Your task to perform on an android device: Clear the cart on newegg.com. Search for "razer blade" on newegg.com, select the first entry, add it to the cart, then select checkout. Image 0: 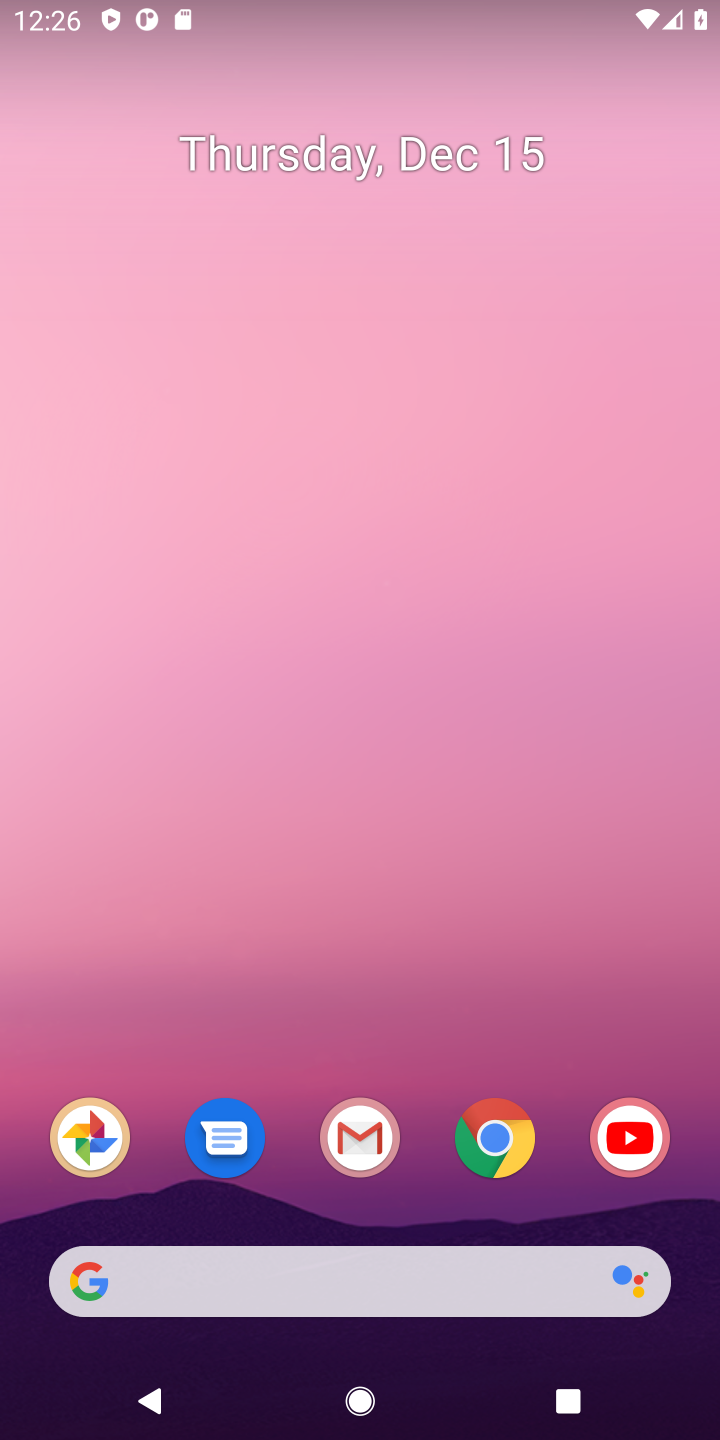
Step 0: click (476, 1156)
Your task to perform on an android device: Clear the cart on newegg.com. Search for "razer blade" on newegg.com, select the first entry, add it to the cart, then select checkout. Image 1: 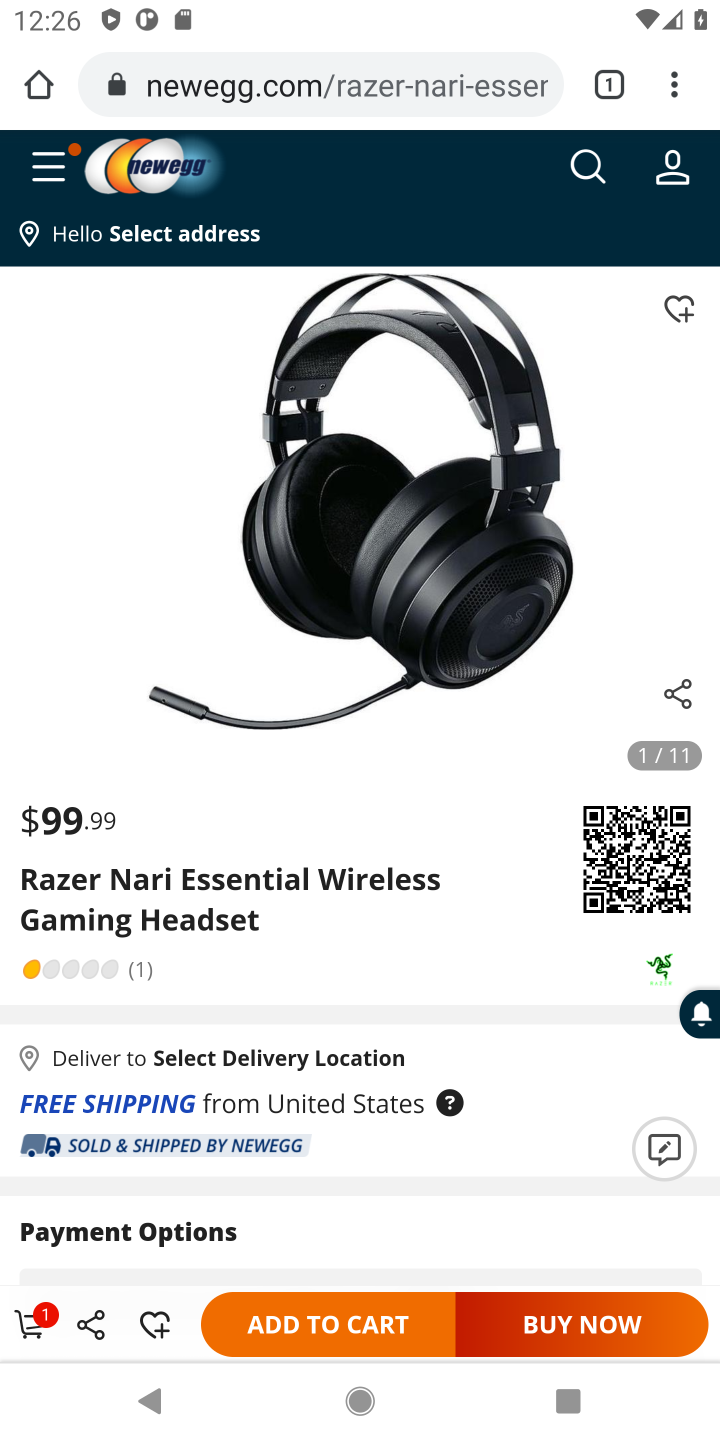
Step 1: click (31, 1324)
Your task to perform on an android device: Clear the cart on newegg.com. Search for "razer blade" on newegg.com, select the first entry, add it to the cart, then select checkout. Image 2: 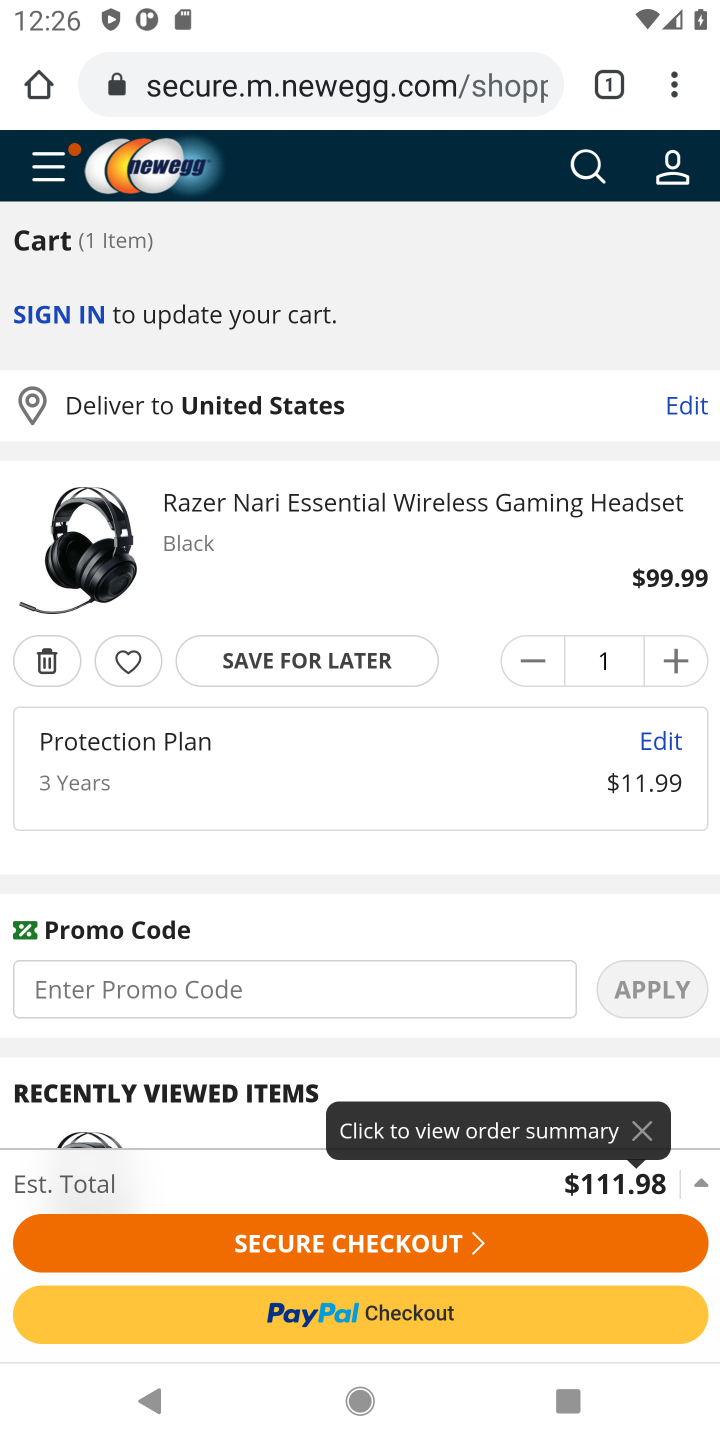
Step 2: click (53, 661)
Your task to perform on an android device: Clear the cart on newegg.com. Search for "razer blade" on newegg.com, select the first entry, add it to the cart, then select checkout. Image 3: 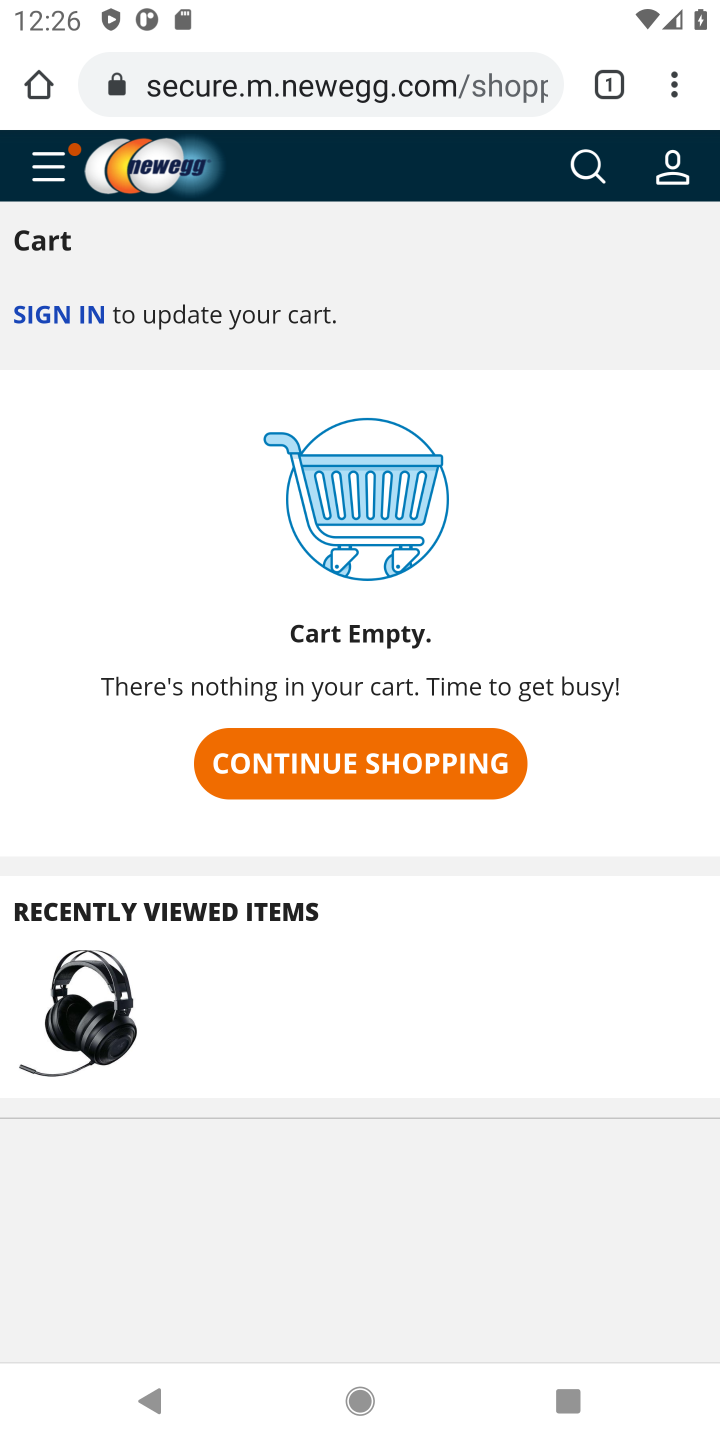
Step 3: click (591, 177)
Your task to perform on an android device: Clear the cart on newegg.com. Search for "razer blade" on newegg.com, select the first entry, add it to the cart, then select checkout. Image 4: 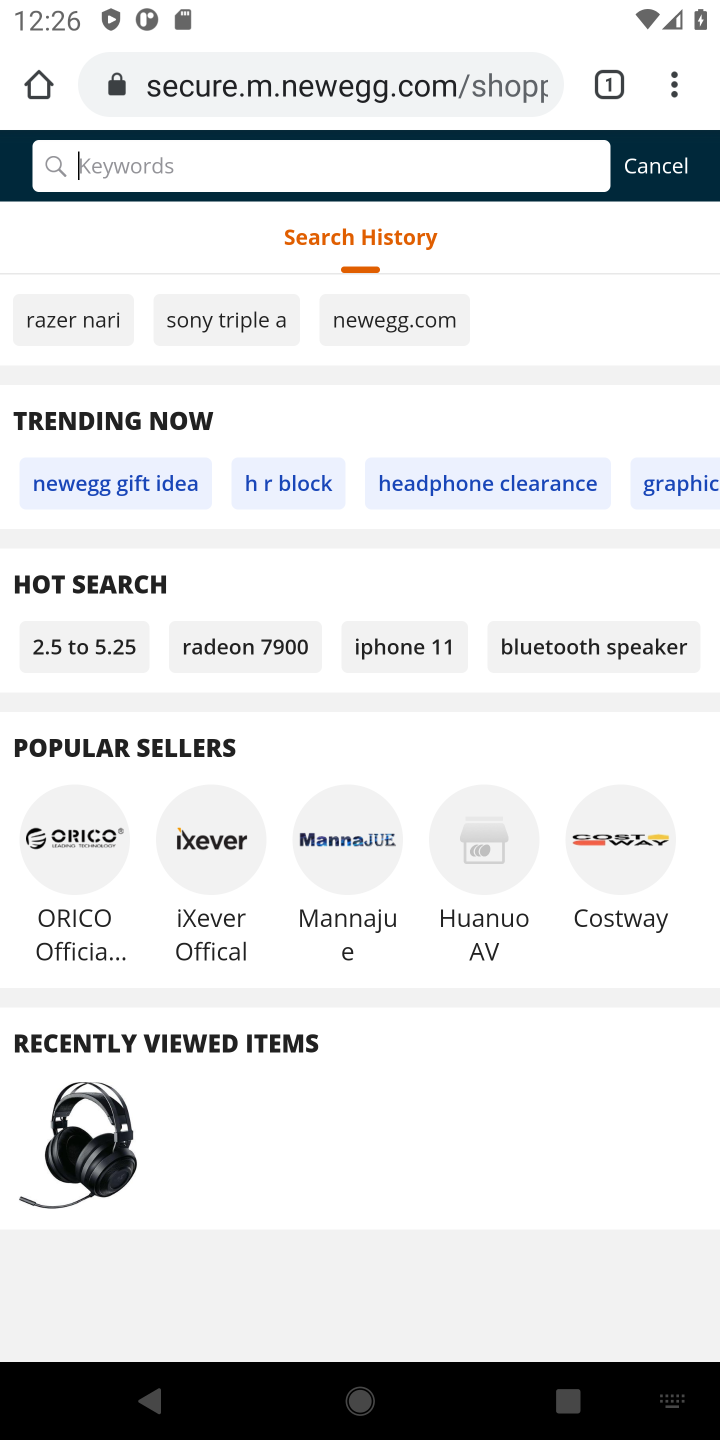
Step 4: click (520, 172)
Your task to perform on an android device: Clear the cart on newegg.com. Search for "razer blade" on newegg.com, select the first entry, add it to the cart, then select checkout. Image 5: 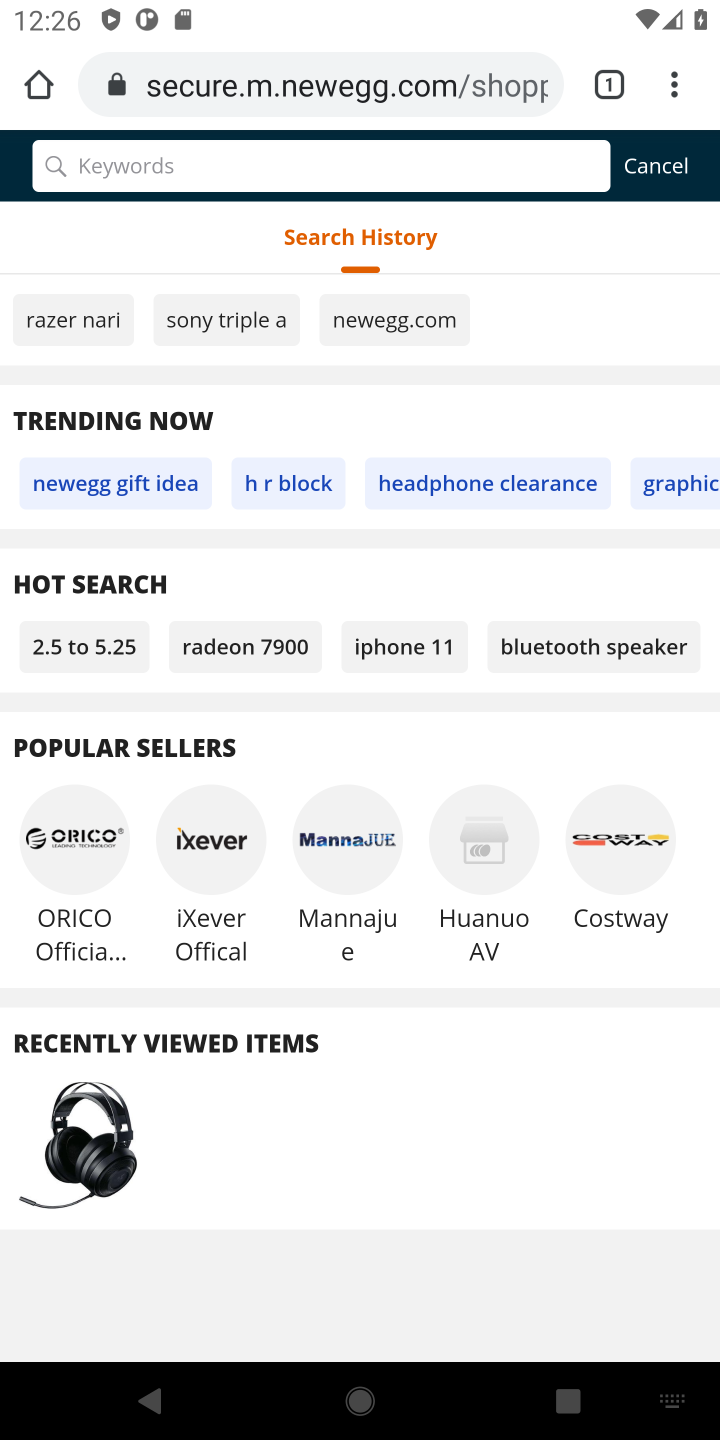
Step 5: type "razer blade"
Your task to perform on an android device: Clear the cart on newegg.com. Search for "razer blade" on newegg.com, select the first entry, add it to the cart, then select checkout. Image 6: 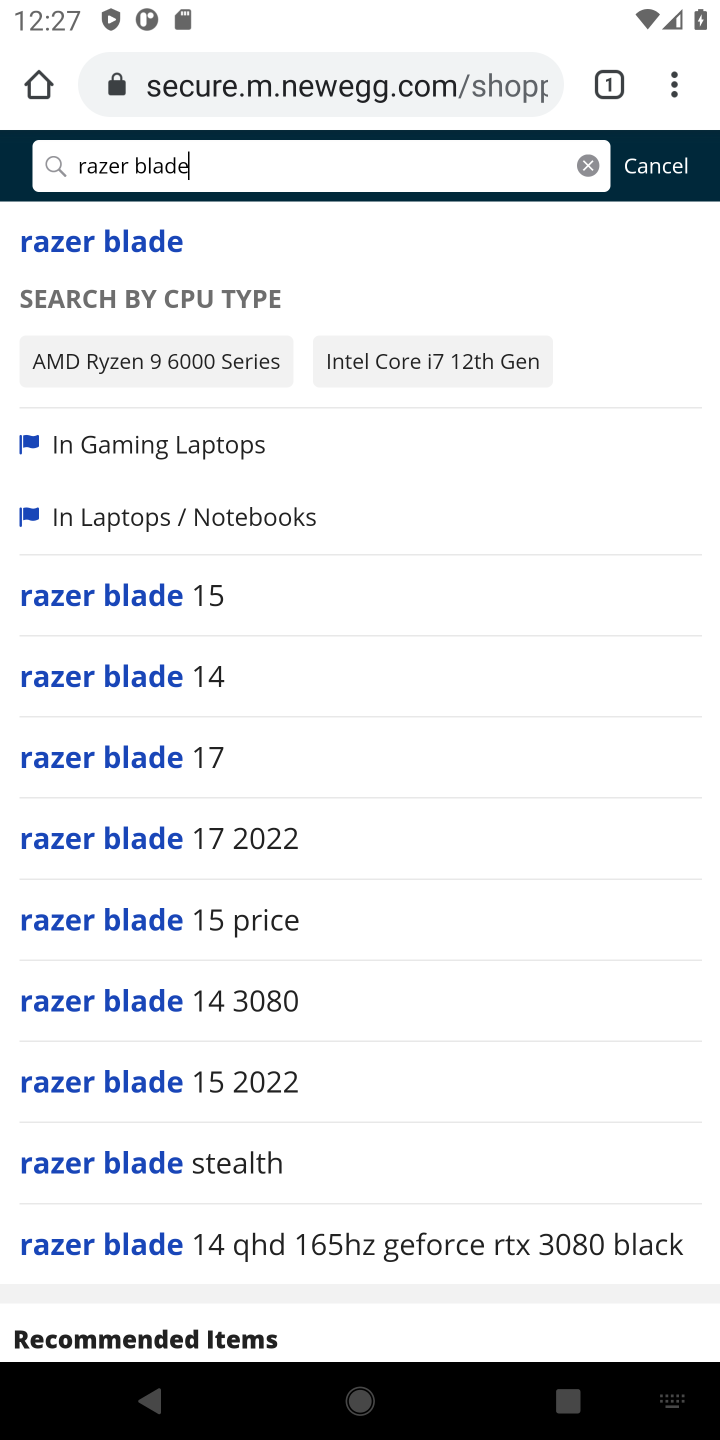
Step 6: press enter
Your task to perform on an android device: Clear the cart on newegg.com. Search for "razer blade" on newegg.com, select the first entry, add it to the cart, then select checkout. Image 7: 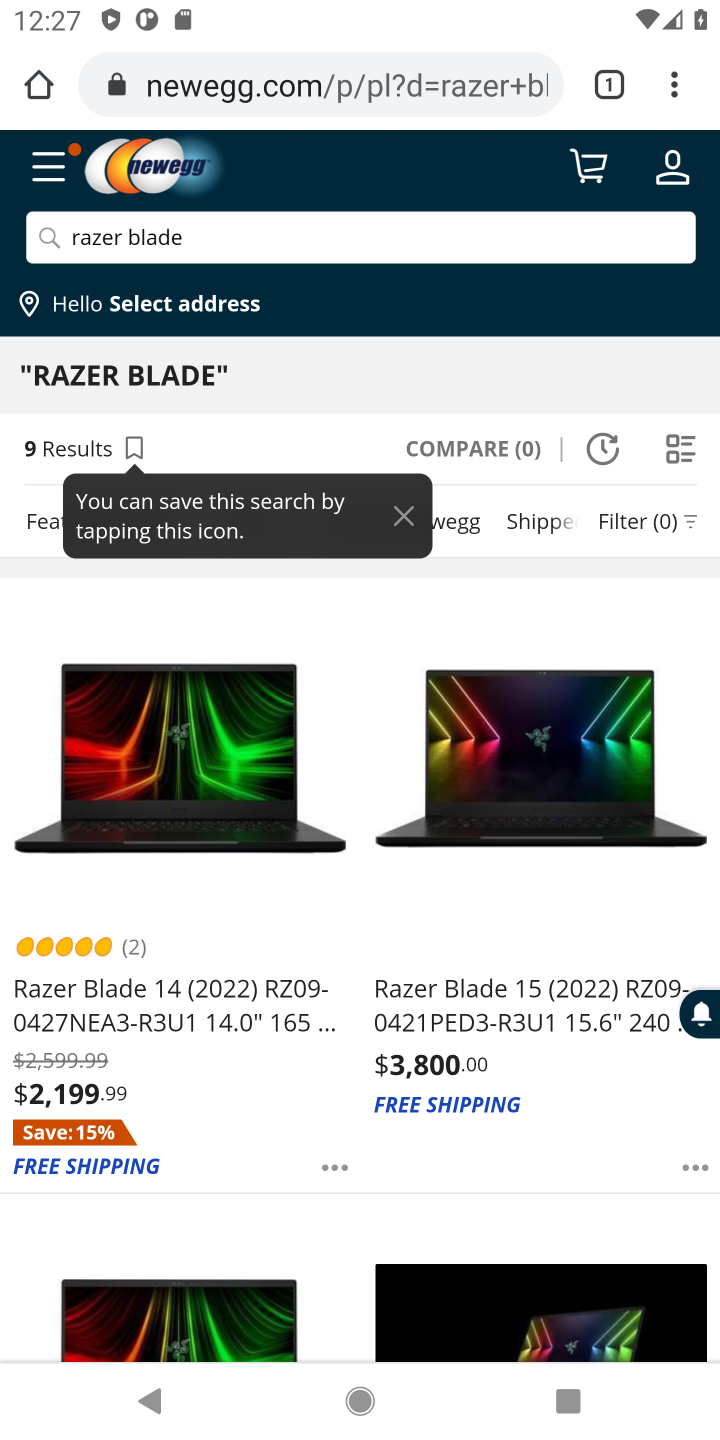
Step 7: click (206, 801)
Your task to perform on an android device: Clear the cart on newegg.com. Search for "razer blade" on newegg.com, select the first entry, add it to the cart, then select checkout. Image 8: 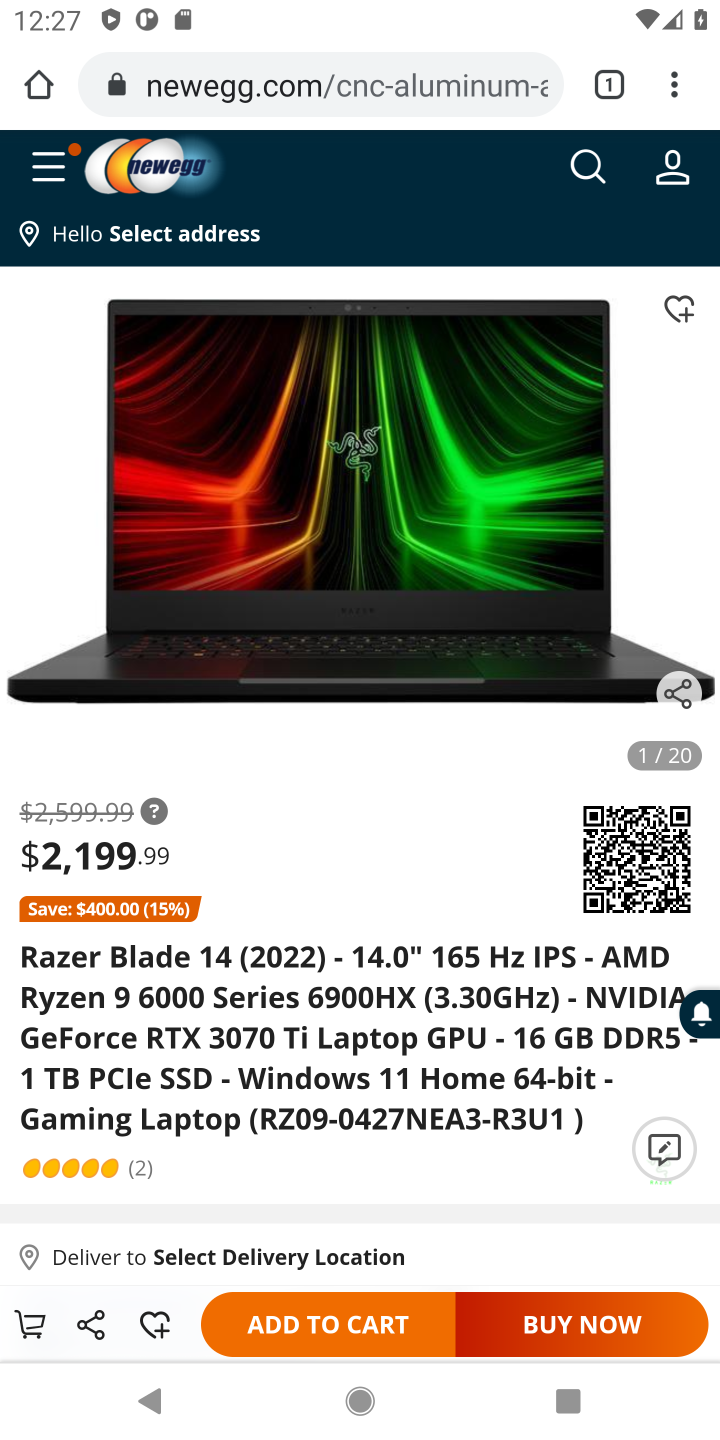
Step 8: click (378, 1318)
Your task to perform on an android device: Clear the cart on newegg.com. Search for "razer blade" on newegg.com, select the first entry, add it to the cart, then select checkout. Image 9: 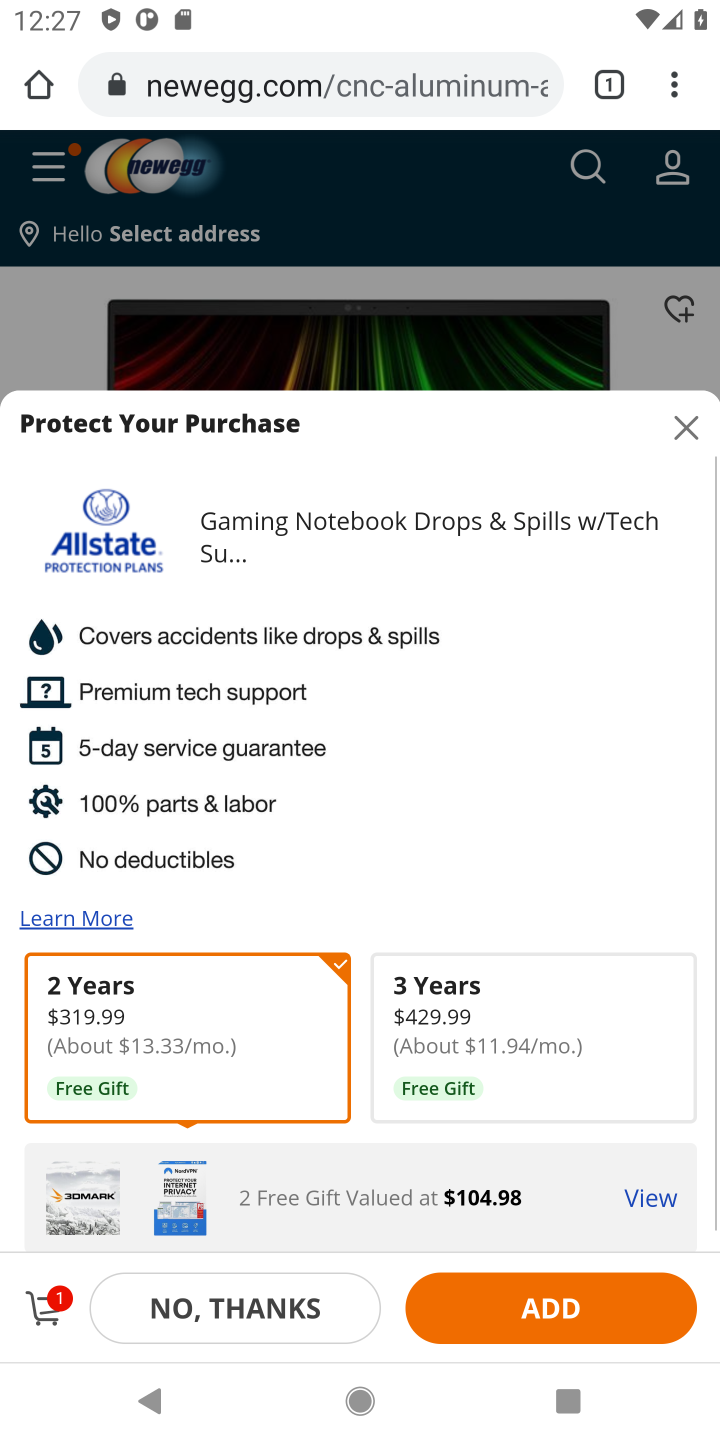
Step 9: click (510, 1310)
Your task to perform on an android device: Clear the cart on newegg.com. Search for "razer blade" on newegg.com, select the first entry, add it to the cart, then select checkout. Image 10: 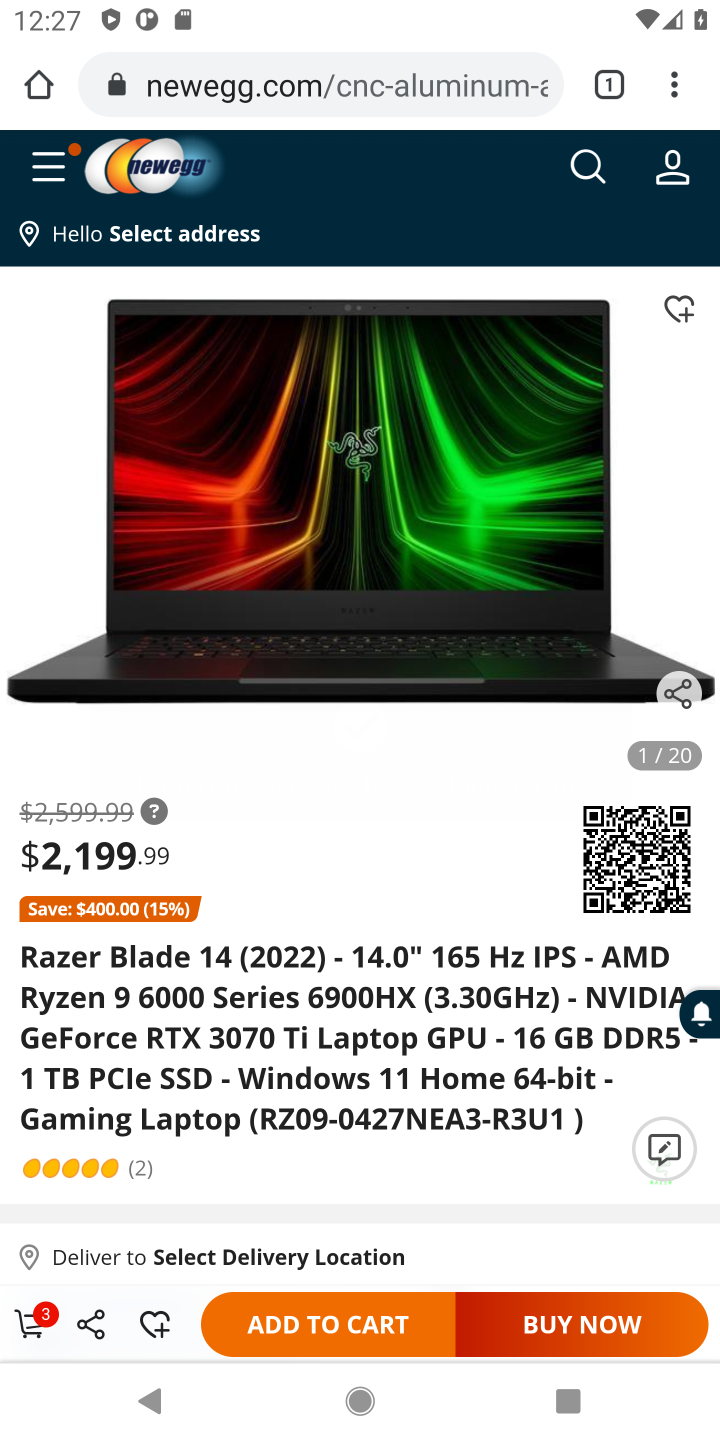
Step 10: click (29, 1330)
Your task to perform on an android device: Clear the cart on newegg.com. Search for "razer blade" on newegg.com, select the first entry, add it to the cart, then select checkout. Image 11: 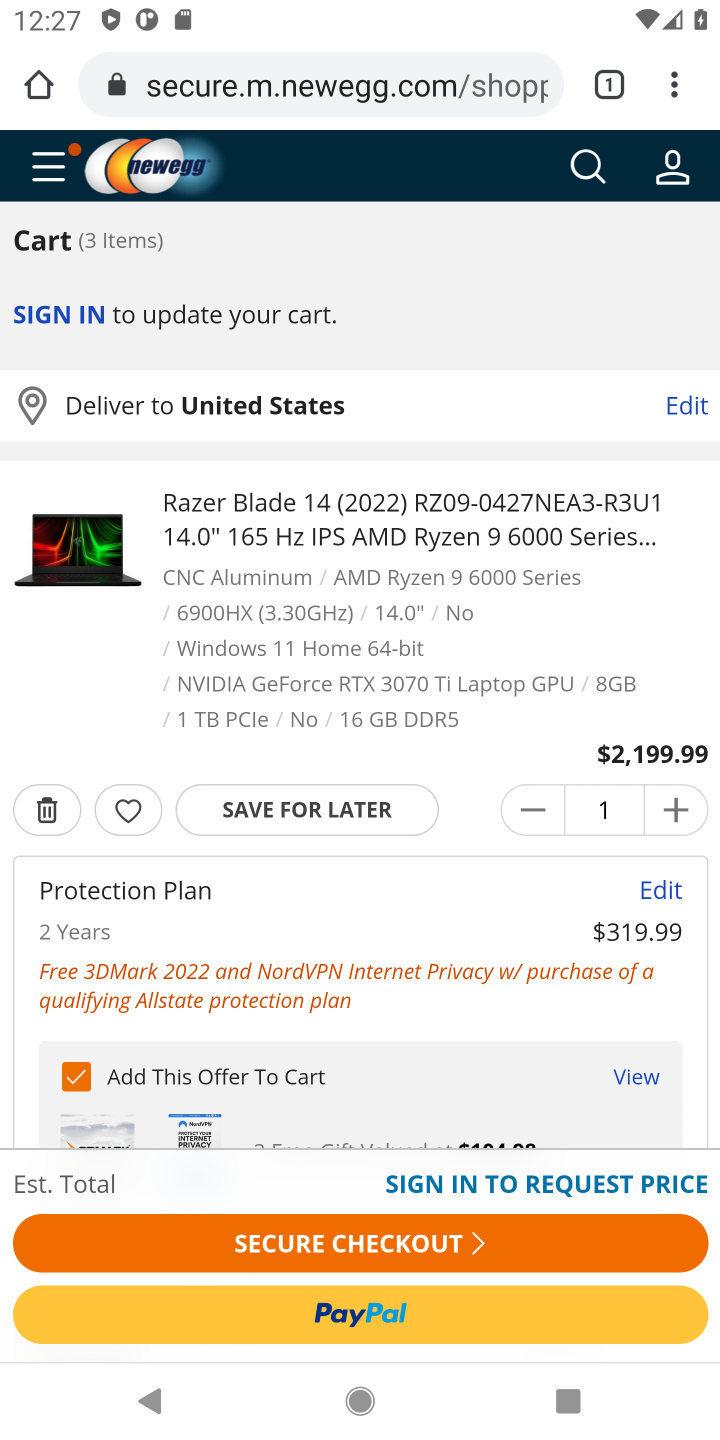
Step 11: click (178, 1293)
Your task to perform on an android device: Clear the cart on newegg.com. Search for "razer blade" on newegg.com, select the first entry, add it to the cart, then select checkout. Image 12: 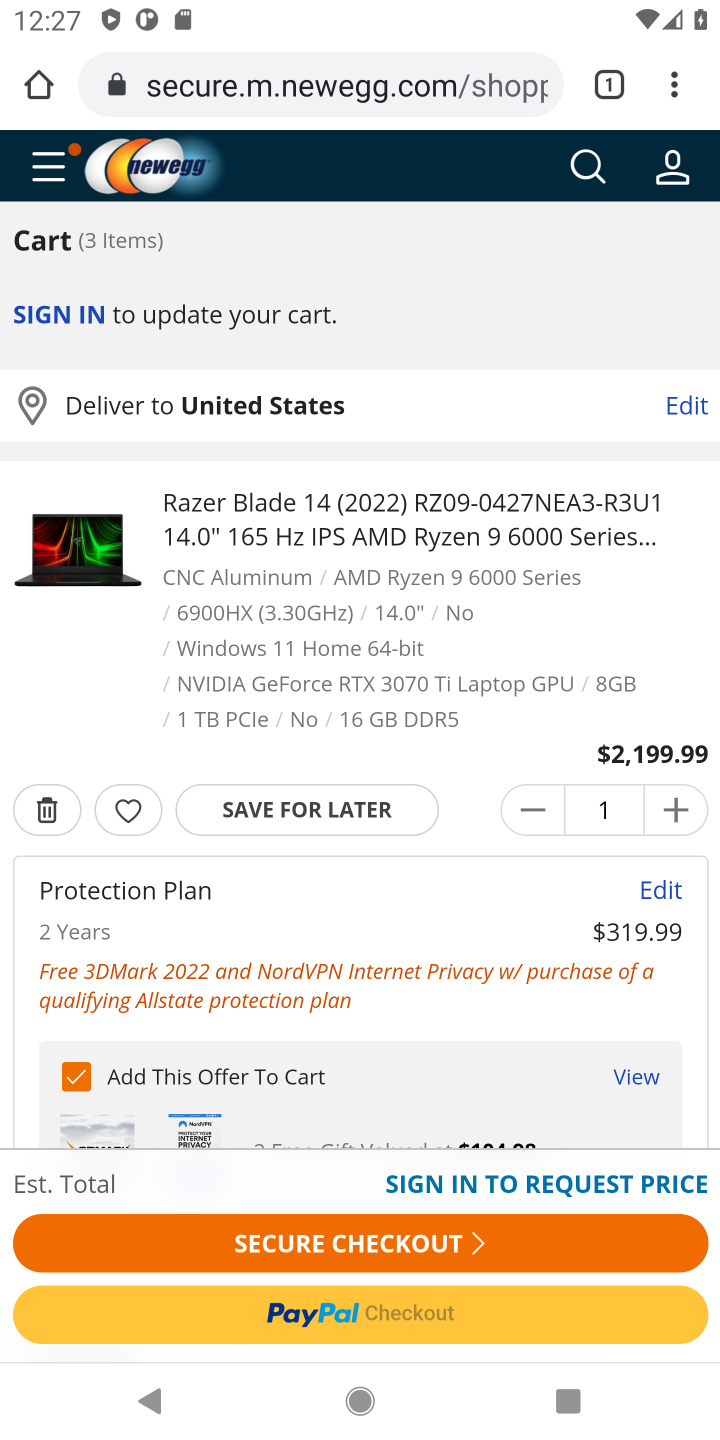
Step 12: click (182, 1234)
Your task to perform on an android device: Clear the cart on newegg.com. Search for "razer blade" on newegg.com, select the first entry, add it to the cart, then select checkout. Image 13: 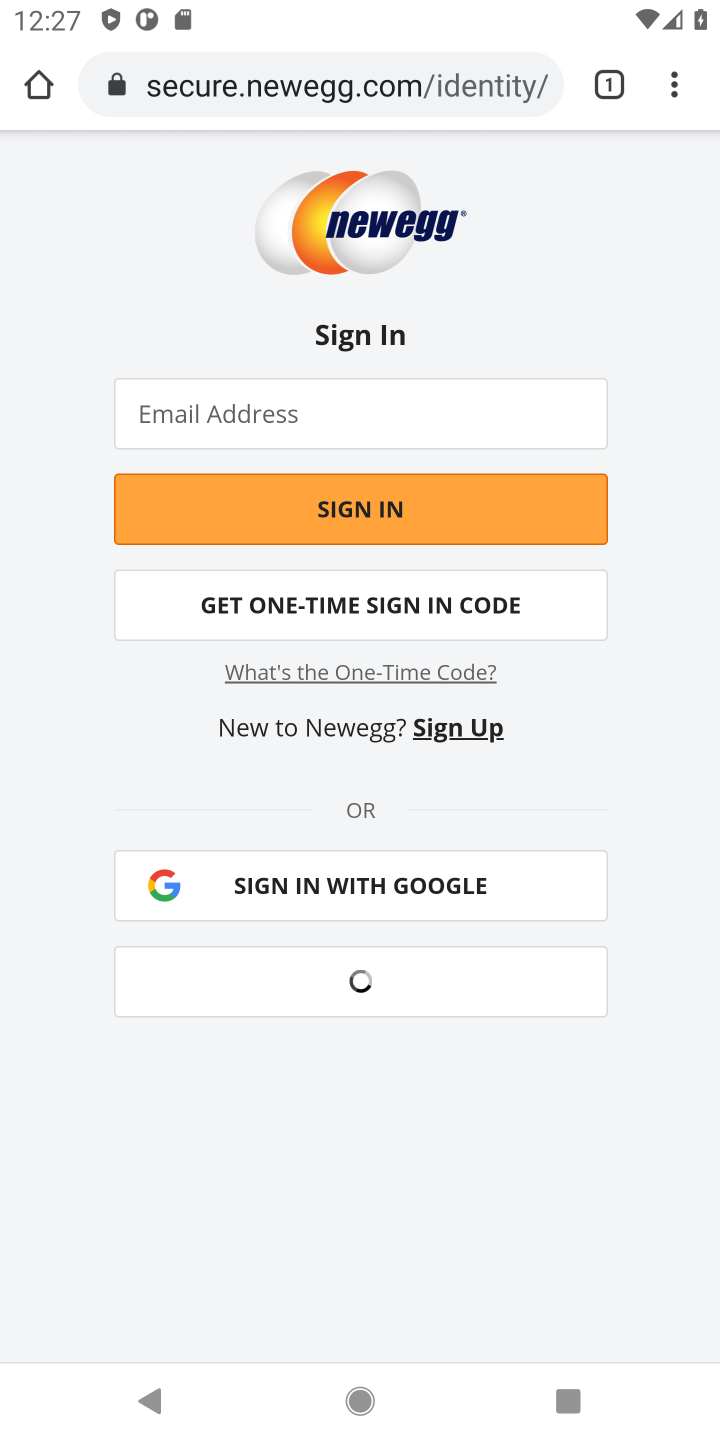
Step 13: task complete